Your task to perform on an android device: Open internet settings Image 0: 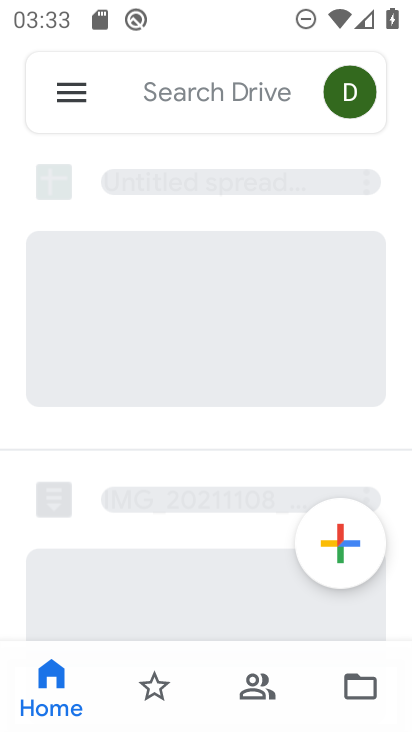
Step 0: press home button
Your task to perform on an android device: Open internet settings Image 1: 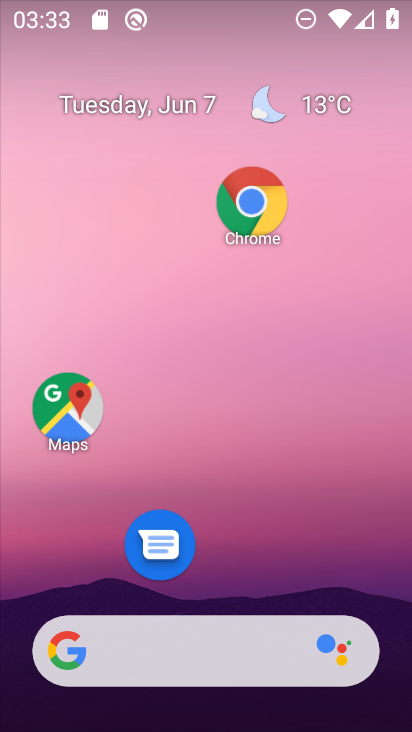
Step 1: drag from (241, 578) to (270, 213)
Your task to perform on an android device: Open internet settings Image 2: 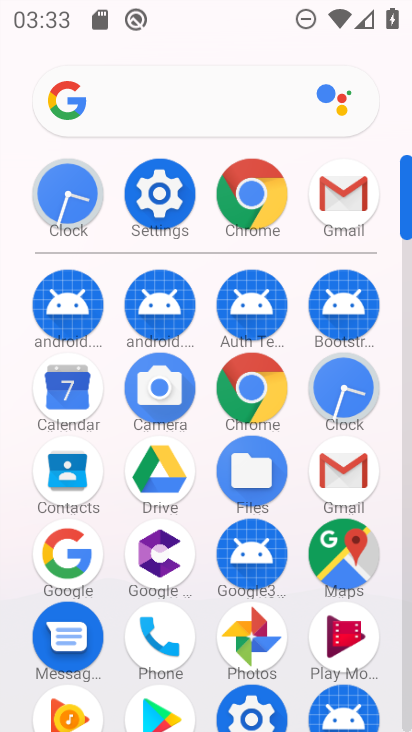
Step 2: click (149, 182)
Your task to perform on an android device: Open internet settings Image 3: 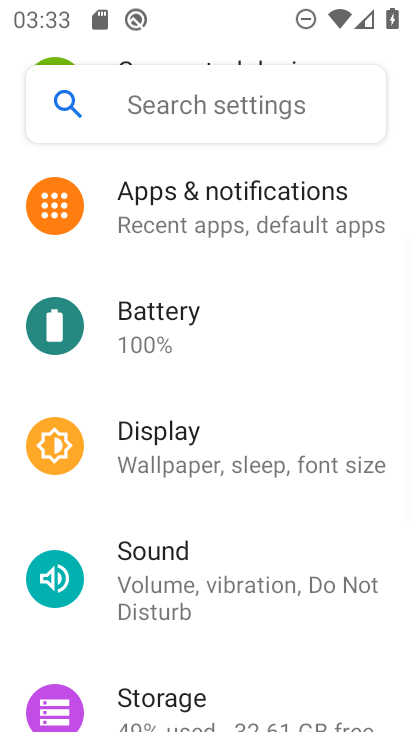
Step 3: drag from (225, 206) to (225, 541)
Your task to perform on an android device: Open internet settings Image 4: 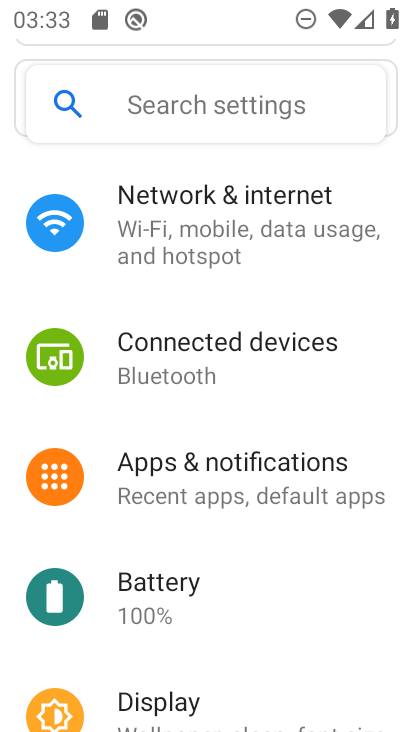
Step 4: click (207, 217)
Your task to perform on an android device: Open internet settings Image 5: 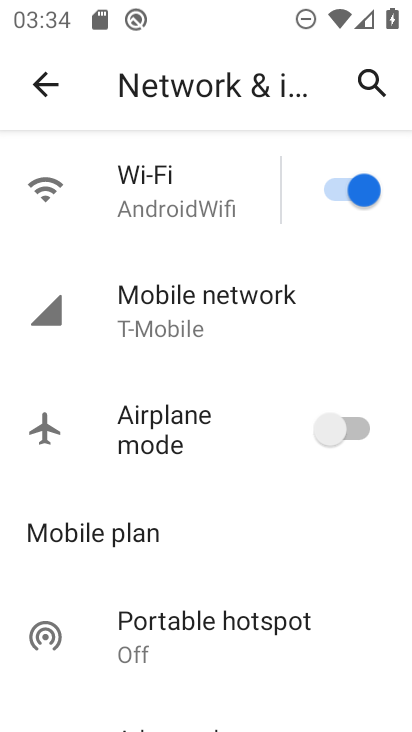
Step 5: task complete